Your task to perform on an android device: Open Google Chrome and open the bookmarks view Image 0: 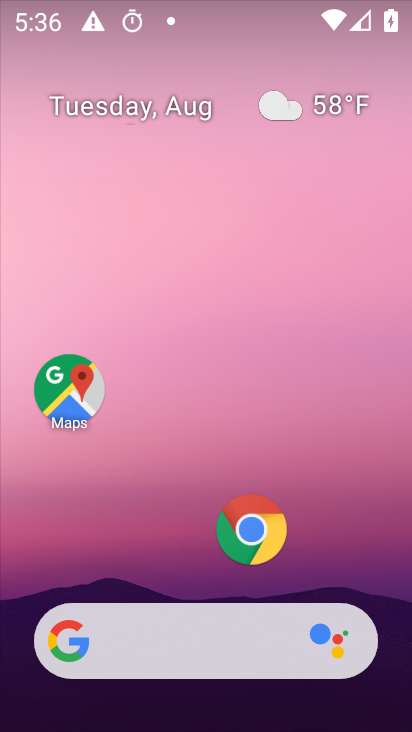
Step 0: click (267, 547)
Your task to perform on an android device: Open Google Chrome and open the bookmarks view Image 1: 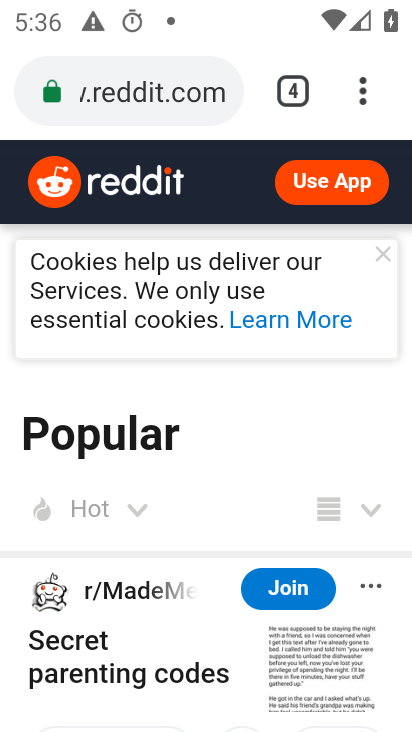
Step 1: click (368, 91)
Your task to perform on an android device: Open Google Chrome and open the bookmarks view Image 2: 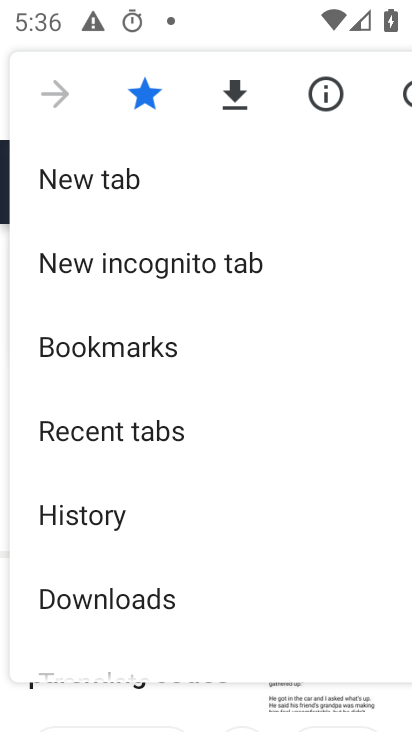
Step 2: click (122, 353)
Your task to perform on an android device: Open Google Chrome and open the bookmarks view Image 3: 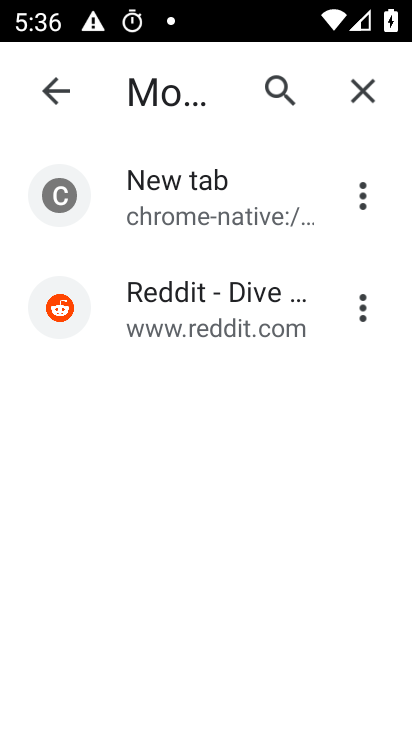
Step 3: task complete